Your task to perform on an android device: turn on notifications settings in the gmail app Image 0: 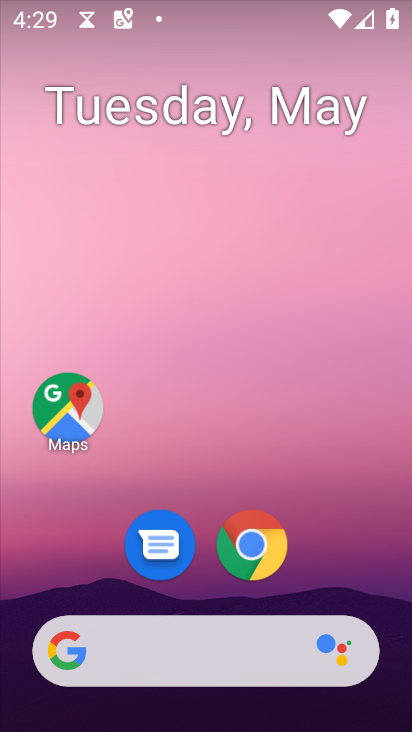
Step 0: drag from (335, 557) to (298, 64)
Your task to perform on an android device: turn on notifications settings in the gmail app Image 1: 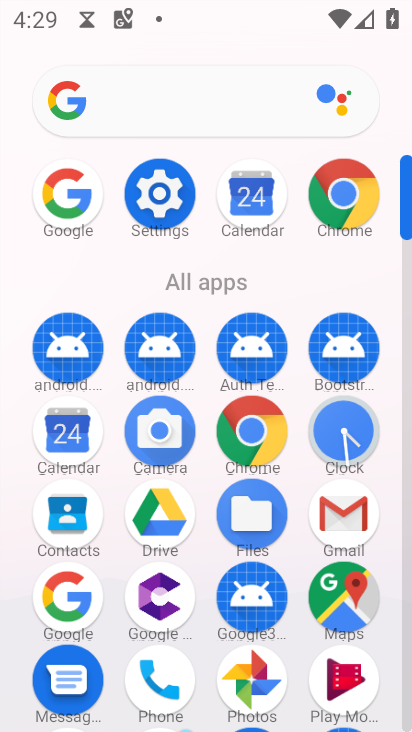
Step 1: click (346, 514)
Your task to perform on an android device: turn on notifications settings in the gmail app Image 2: 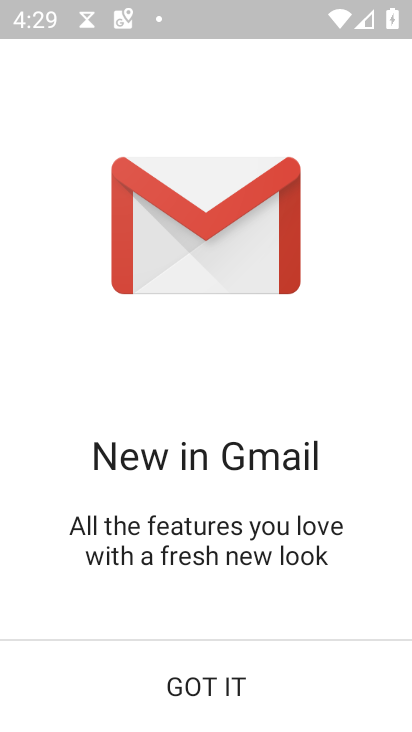
Step 2: click (201, 683)
Your task to perform on an android device: turn on notifications settings in the gmail app Image 3: 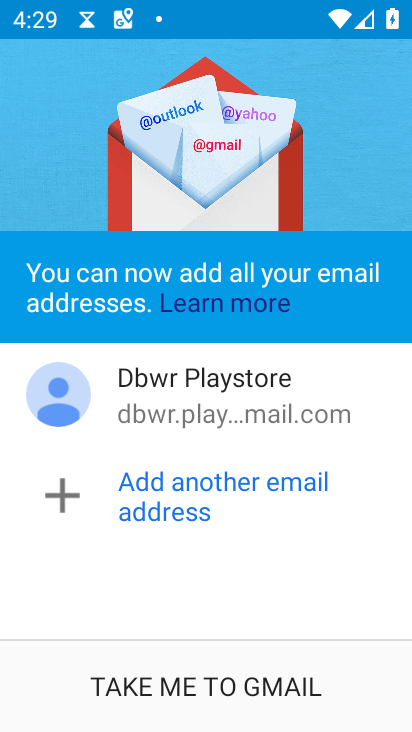
Step 3: click (201, 683)
Your task to perform on an android device: turn on notifications settings in the gmail app Image 4: 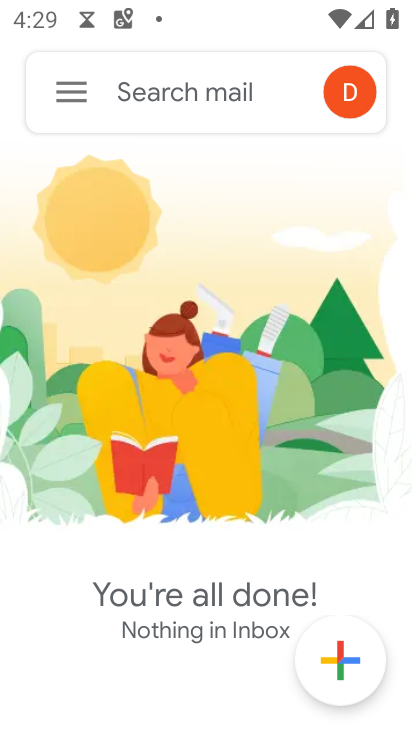
Step 4: click (73, 99)
Your task to perform on an android device: turn on notifications settings in the gmail app Image 5: 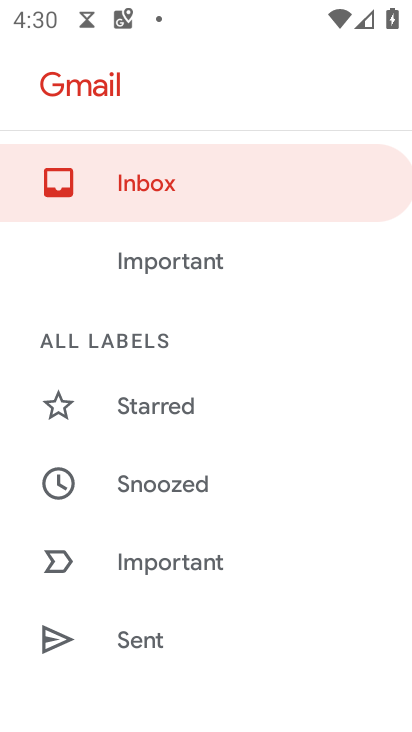
Step 5: drag from (158, 448) to (206, 344)
Your task to perform on an android device: turn on notifications settings in the gmail app Image 6: 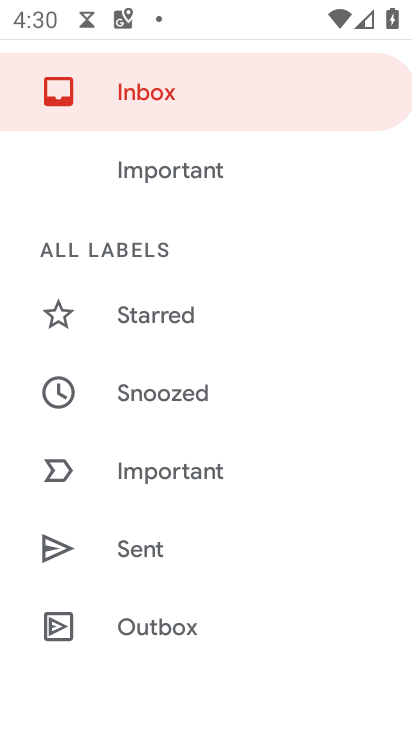
Step 6: drag from (159, 437) to (200, 337)
Your task to perform on an android device: turn on notifications settings in the gmail app Image 7: 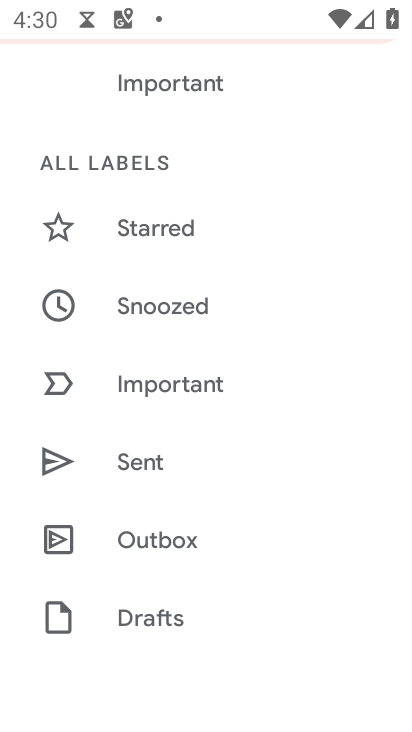
Step 7: drag from (151, 430) to (174, 325)
Your task to perform on an android device: turn on notifications settings in the gmail app Image 8: 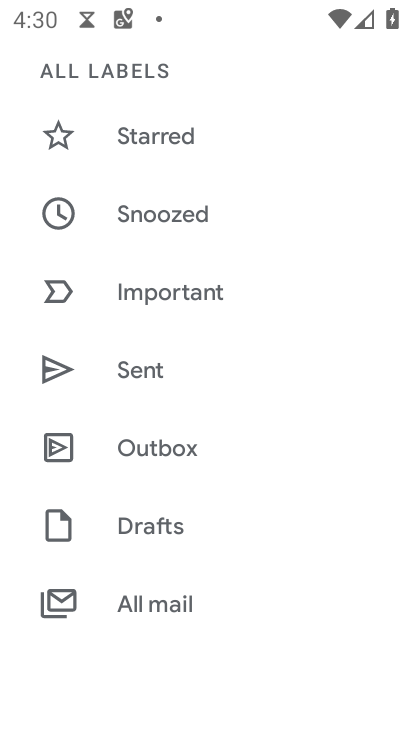
Step 8: drag from (183, 418) to (200, 383)
Your task to perform on an android device: turn on notifications settings in the gmail app Image 9: 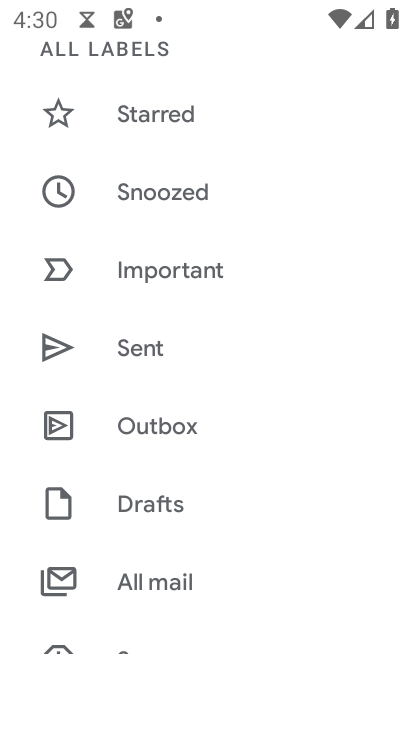
Step 9: drag from (165, 471) to (211, 367)
Your task to perform on an android device: turn on notifications settings in the gmail app Image 10: 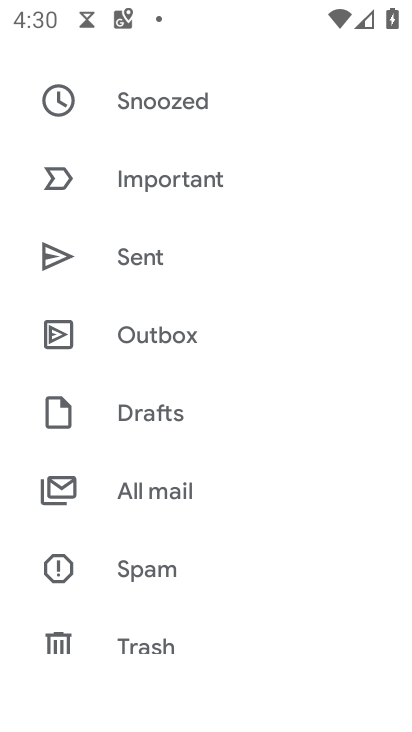
Step 10: drag from (142, 457) to (196, 361)
Your task to perform on an android device: turn on notifications settings in the gmail app Image 11: 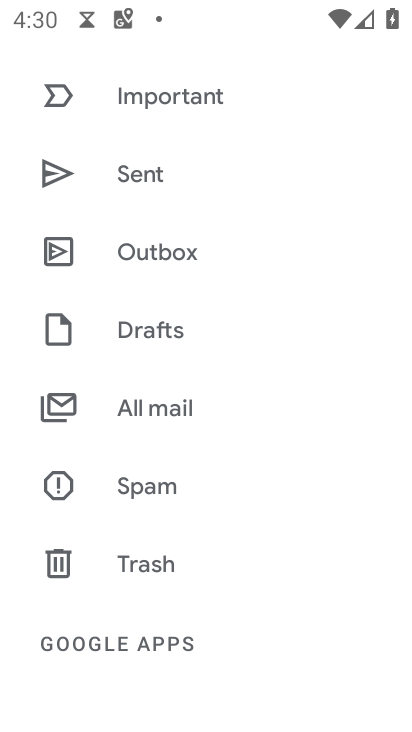
Step 11: drag from (154, 525) to (194, 423)
Your task to perform on an android device: turn on notifications settings in the gmail app Image 12: 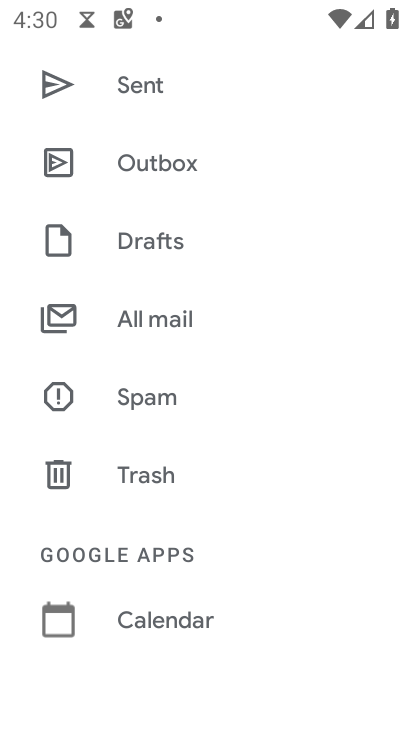
Step 12: drag from (154, 506) to (203, 412)
Your task to perform on an android device: turn on notifications settings in the gmail app Image 13: 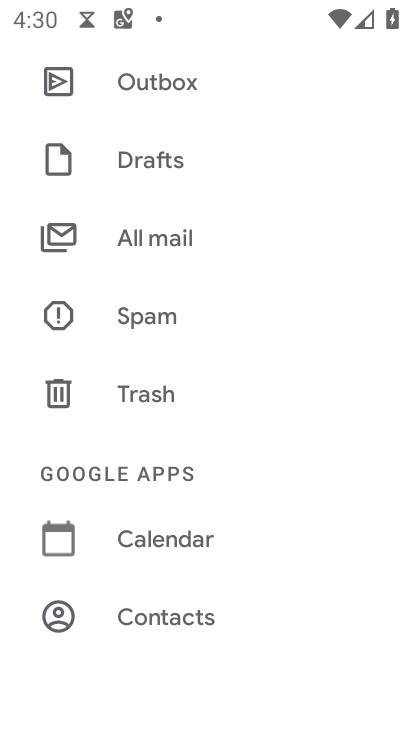
Step 13: drag from (136, 497) to (199, 389)
Your task to perform on an android device: turn on notifications settings in the gmail app Image 14: 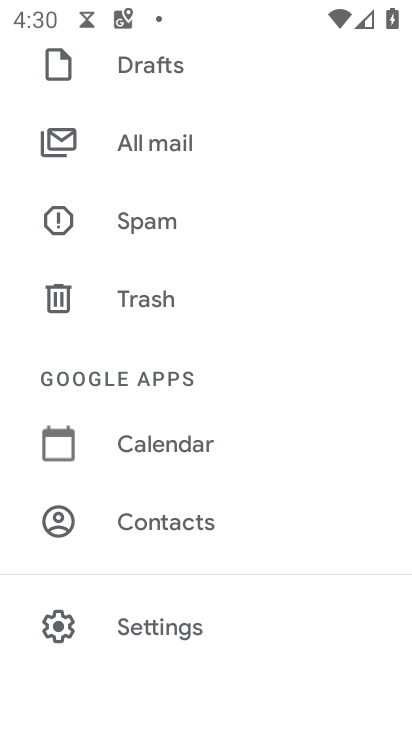
Step 14: drag from (148, 491) to (225, 392)
Your task to perform on an android device: turn on notifications settings in the gmail app Image 15: 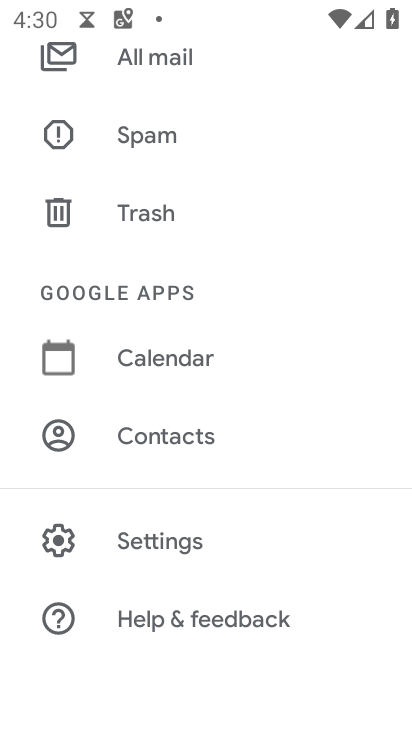
Step 15: click (151, 542)
Your task to perform on an android device: turn on notifications settings in the gmail app Image 16: 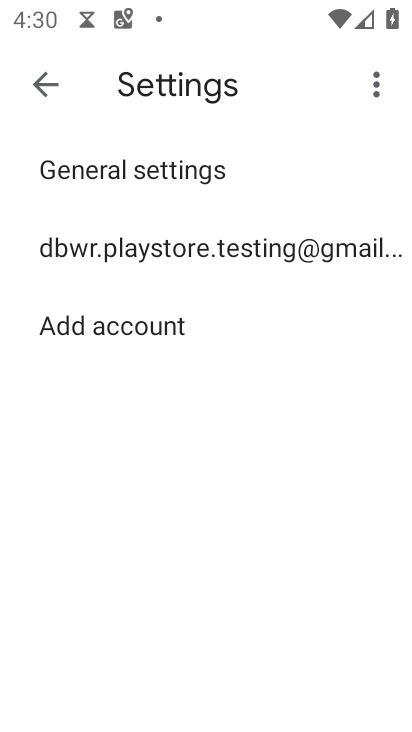
Step 16: click (170, 244)
Your task to perform on an android device: turn on notifications settings in the gmail app Image 17: 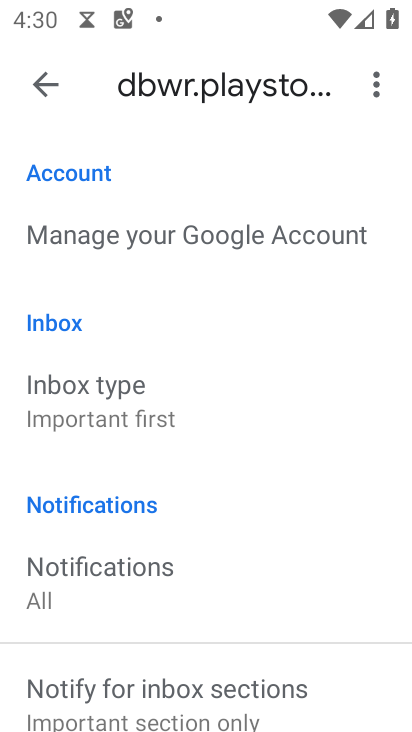
Step 17: drag from (123, 458) to (160, 355)
Your task to perform on an android device: turn on notifications settings in the gmail app Image 18: 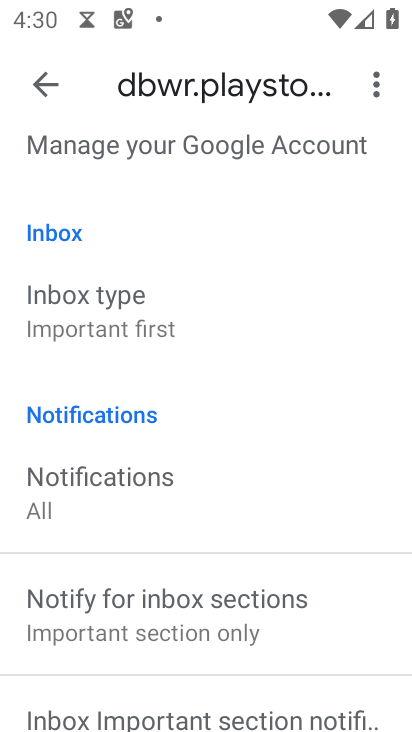
Step 18: drag from (118, 502) to (187, 404)
Your task to perform on an android device: turn on notifications settings in the gmail app Image 19: 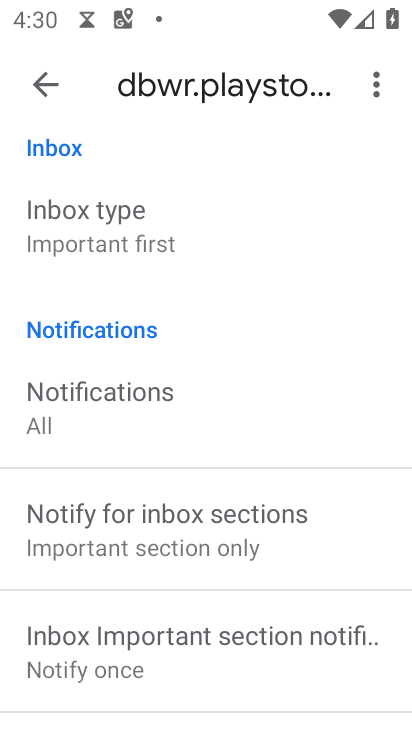
Step 19: drag from (137, 589) to (202, 442)
Your task to perform on an android device: turn on notifications settings in the gmail app Image 20: 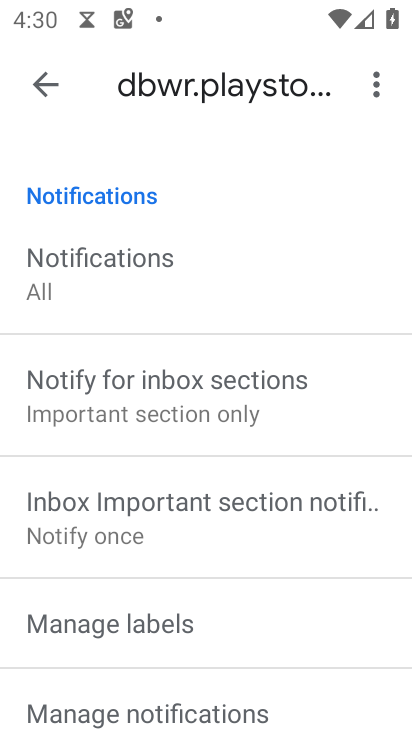
Step 20: drag from (134, 578) to (207, 450)
Your task to perform on an android device: turn on notifications settings in the gmail app Image 21: 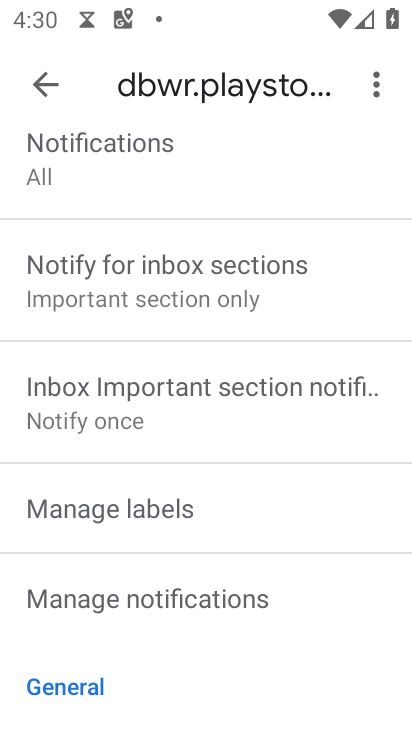
Step 21: drag from (122, 568) to (212, 431)
Your task to perform on an android device: turn on notifications settings in the gmail app Image 22: 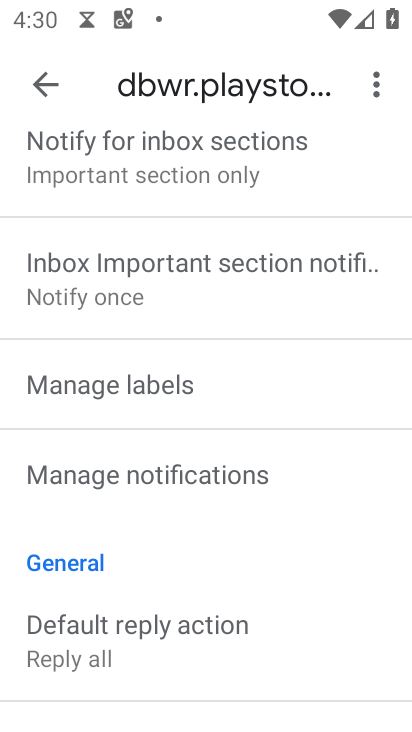
Step 22: click (195, 467)
Your task to perform on an android device: turn on notifications settings in the gmail app Image 23: 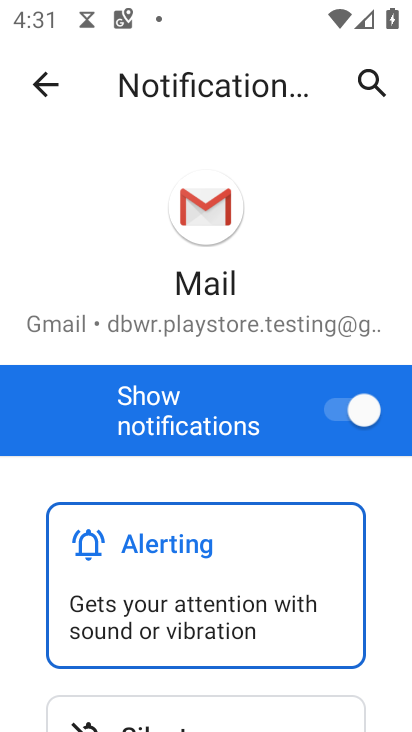
Step 23: task complete